Your task to perform on an android device: What is the recent news? Image 0: 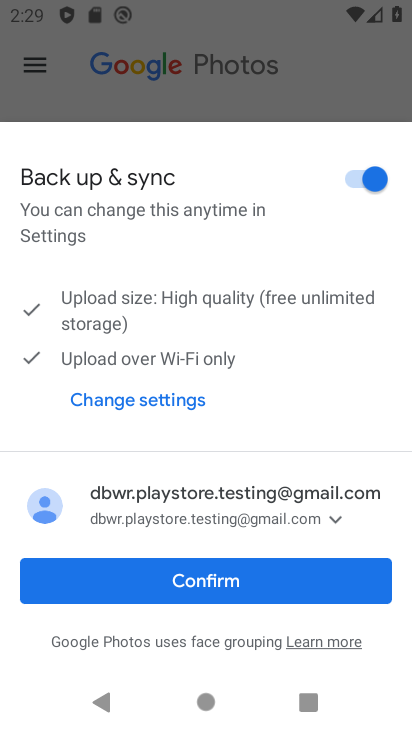
Step 0: press home button
Your task to perform on an android device: What is the recent news? Image 1: 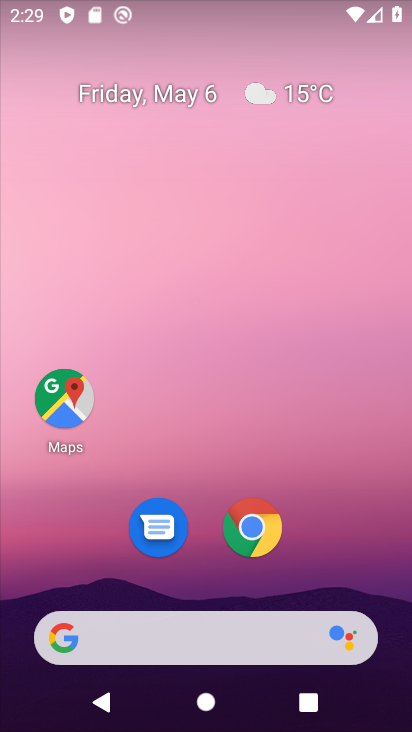
Step 1: click (250, 524)
Your task to perform on an android device: What is the recent news? Image 2: 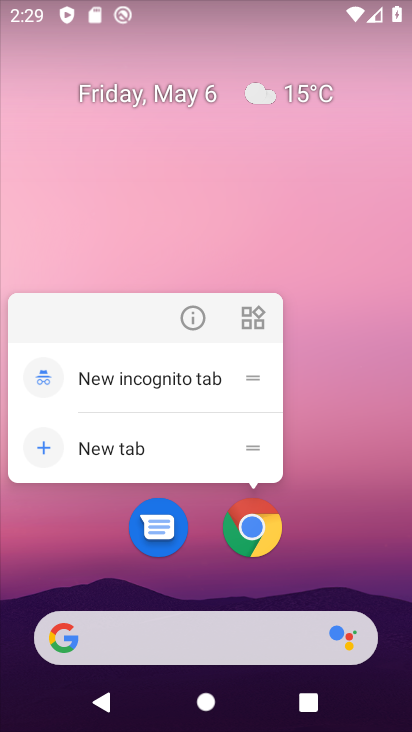
Step 2: click (189, 318)
Your task to perform on an android device: What is the recent news? Image 3: 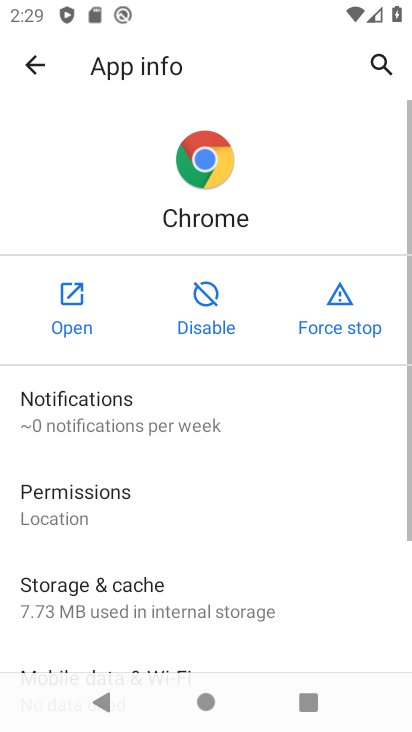
Step 3: click (86, 285)
Your task to perform on an android device: What is the recent news? Image 4: 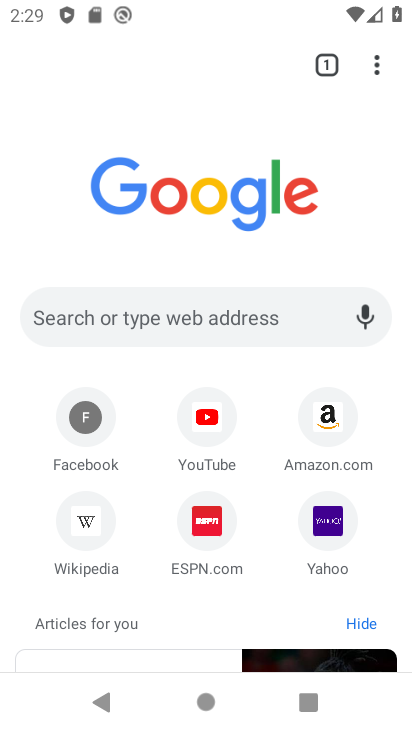
Step 4: click (80, 316)
Your task to perform on an android device: What is the recent news? Image 5: 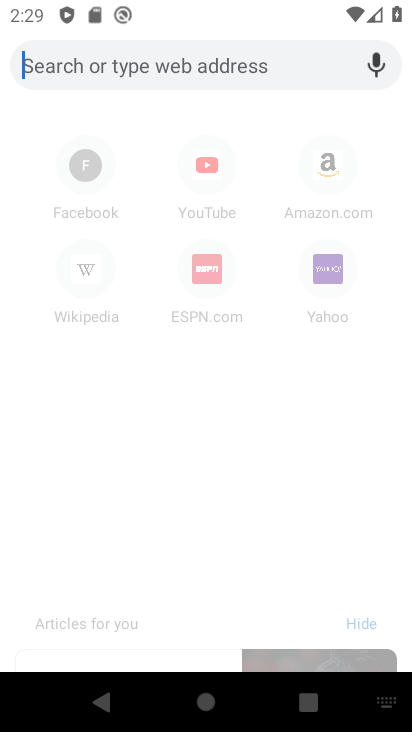
Step 5: type "recent news"
Your task to perform on an android device: What is the recent news? Image 6: 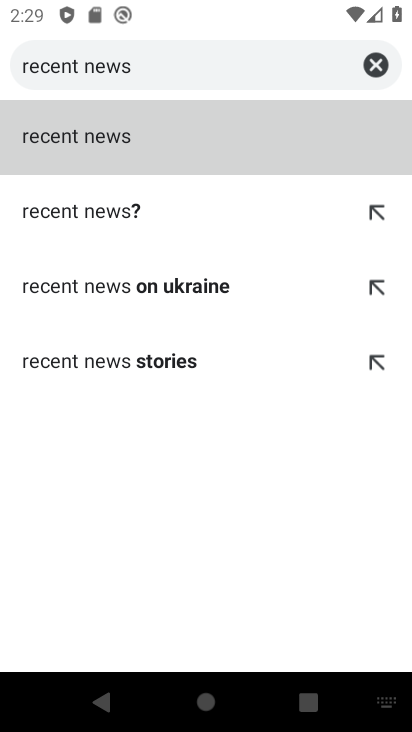
Step 6: click (157, 143)
Your task to perform on an android device: What is the recent news? Image 7: 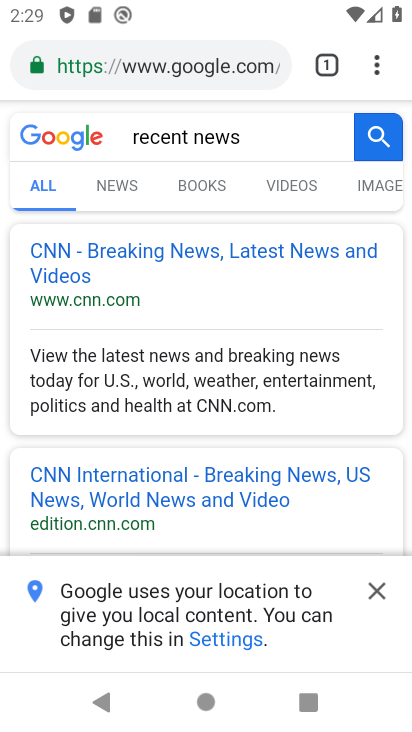
Step 7: task complete